Your task to perform on an android device: toggle improve location accuracy Image 0: 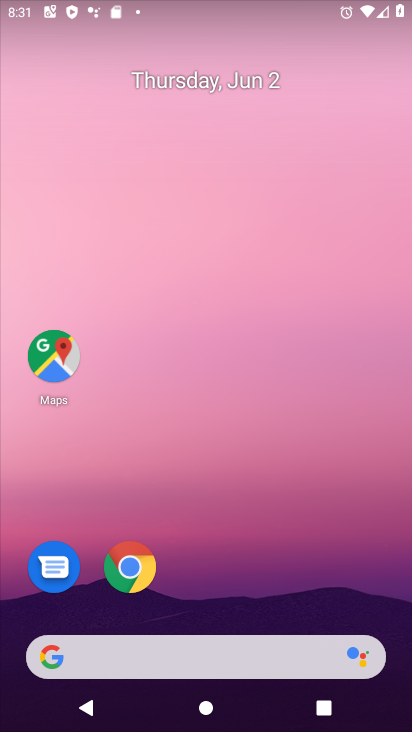
Step 0: drag from (286, 570) to (171, 97)
Your task to perform on an android device: toggle improve location accuracy Image 1: 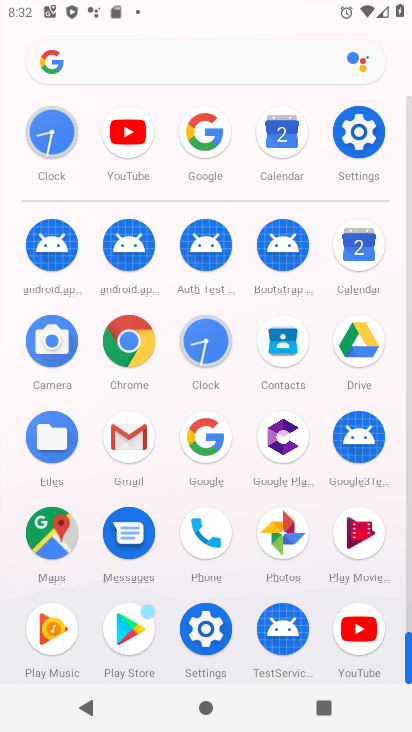
Step 1: click (358, 132)
Your task to perform on an android device: toggle improve location accuracy Image 2: 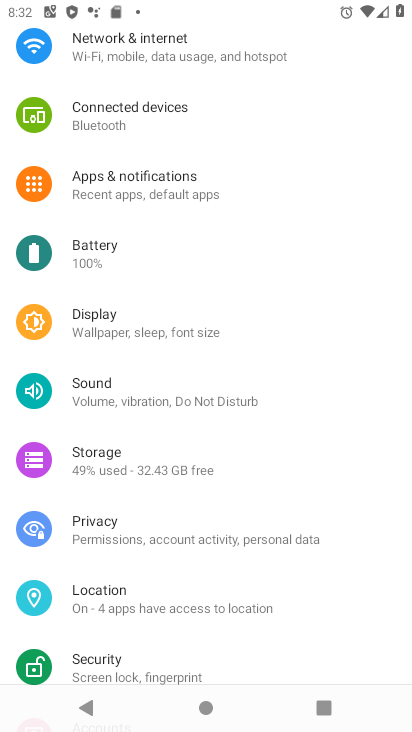
Step 2: click (123, 602)
Your task to perform on an android device: toggle improve location accuracy Image 3: 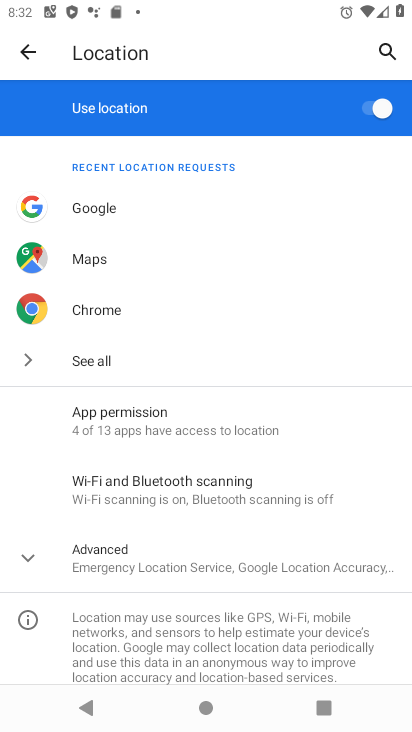
Step 3: click (129, 559)
Your task to perform on an android device: toggle improve location accuracy Image 4: 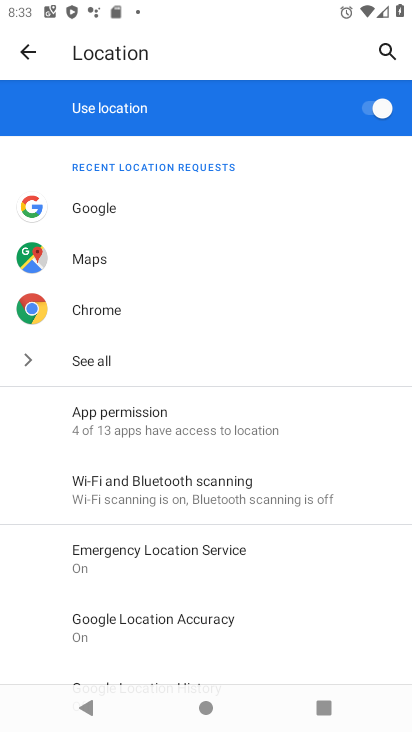
Step 4: click (133, 622)
Your task to perform on an android device: toggle improve location accuracy Image 5: 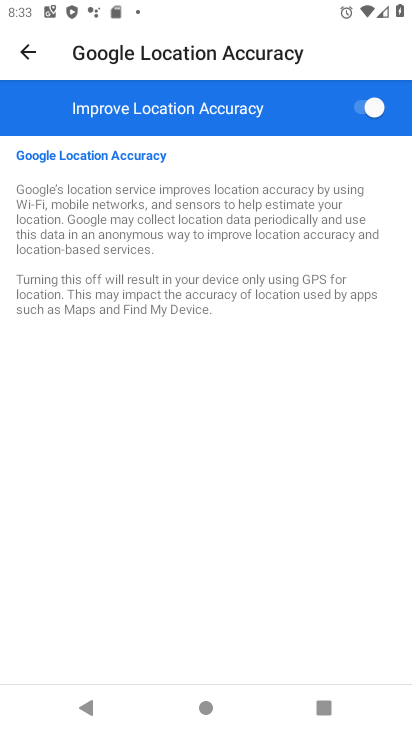
Step 5: click (362, 115)
Your task to perform on an android device: toggle improve location accuracy Image 6: 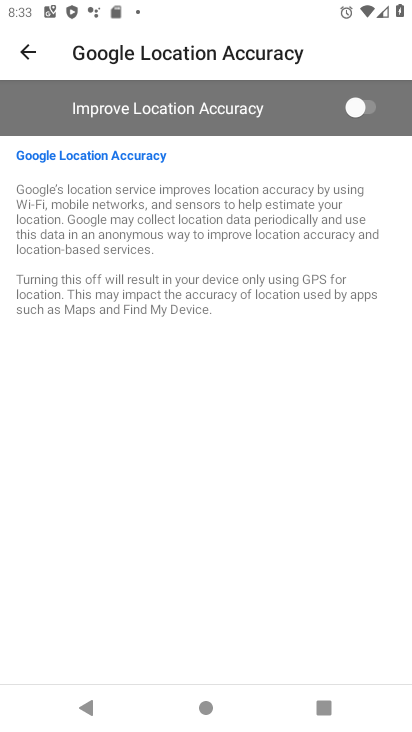
Step 6: task complete